Your task to perform on an android device: turn off javascript in the chrome app Image 0: 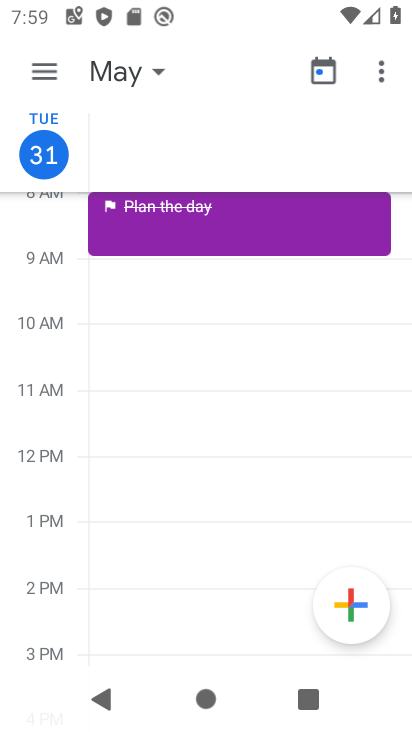
Step 0: press home button
Your task to perform on an android device: turn off javascript in the chrome app Image 1: 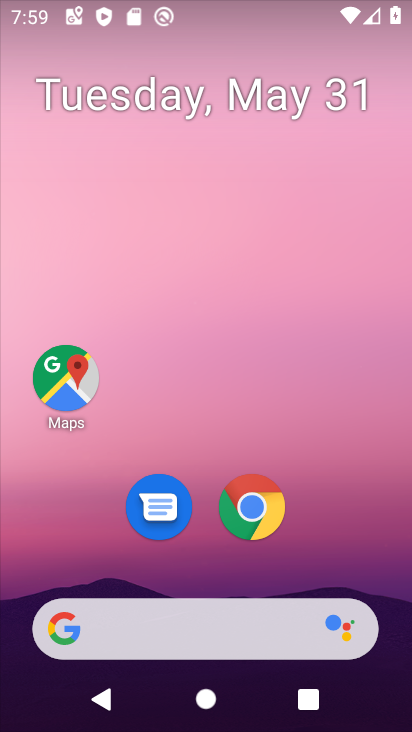
Step 1: drag from (330, 563) to (304, 104)
Your task to perform on an android device: turn off javascript in the chrome app Image 2: 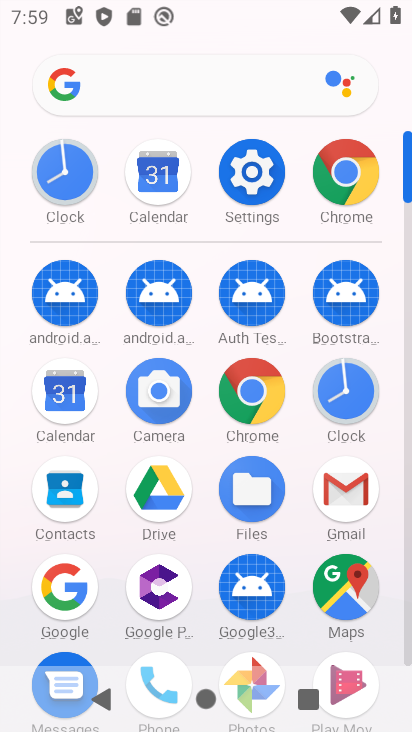
Step 2: click (252, 394)
Your task to perform on an android device: turn off javascript in the chrome app Image 3: 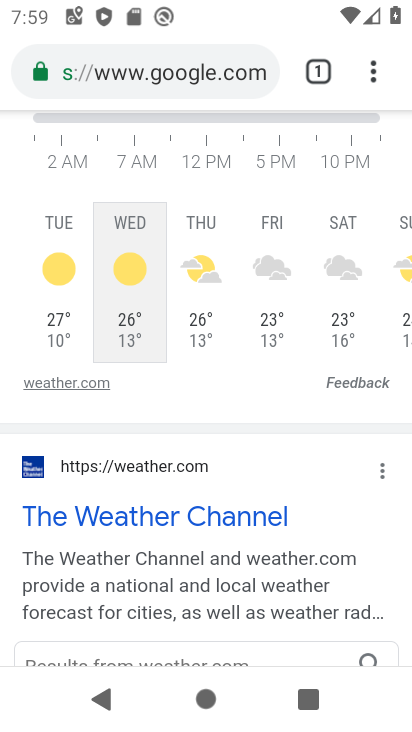
Step 3: click (376, 66)
Your task to perform on an android device: turn off javascript in the chrome app Image 4: 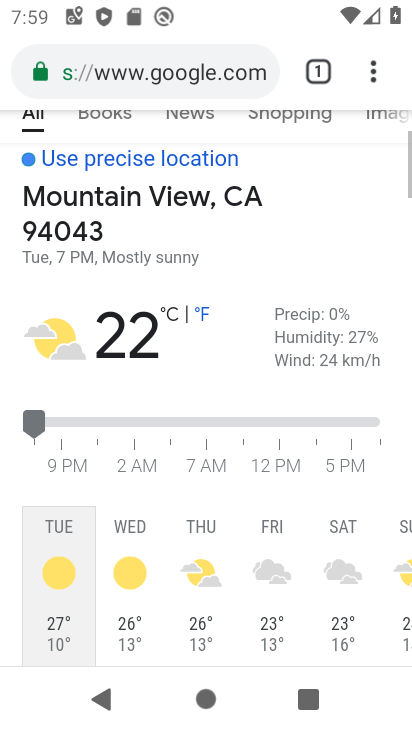
Step 4: drag from (367, 67) to (134, 511)
Your task to perform on an android device: turn off javascript in the chrome app Image 5: 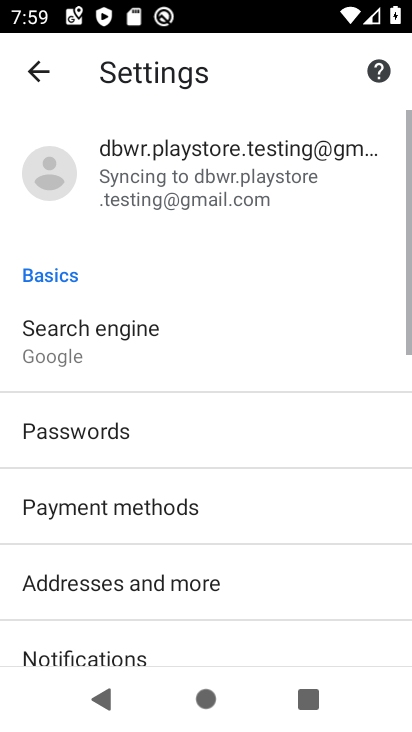
Step 5: drag from (134, 510) to (190, 221)
Your task to perform on an android device: turn off javascript in the chrome app Image 6: 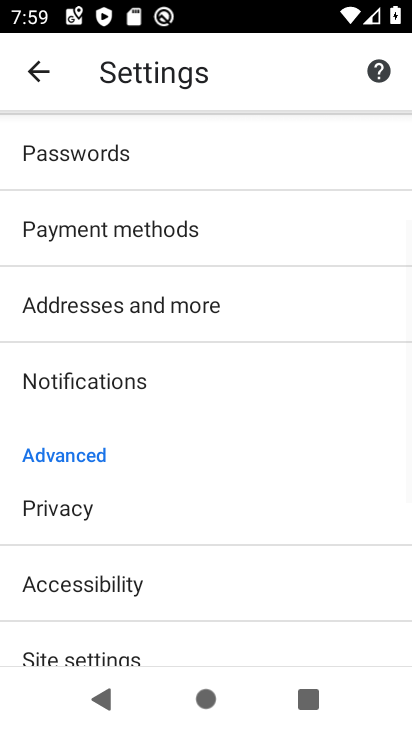
Step 6: drag from (264, 595) to (300, 235)
Your task to perform on an android device: turn off javascript in the chrome app Image 7: 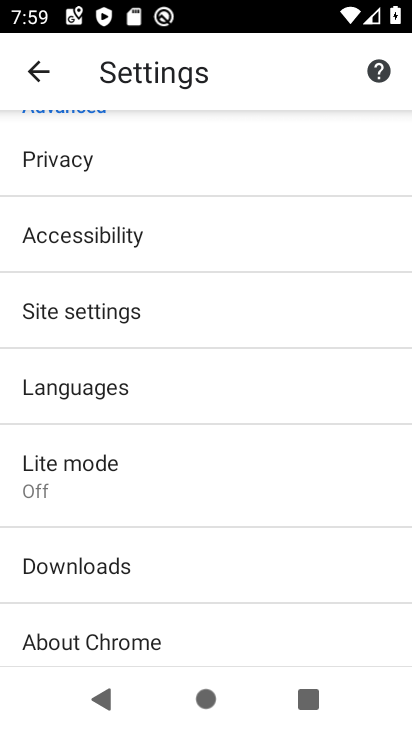
Step 7: click (108, 298)
Your task to perform on an android device: turn off javascript in the chrome app Image 8: 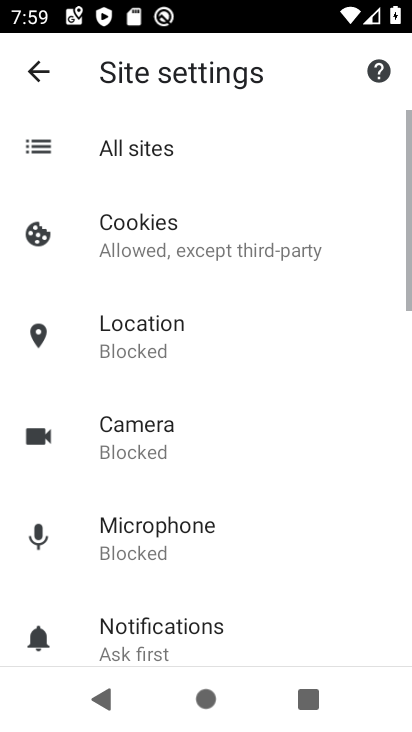
Step 8: drag from (211, 562) to (241, 138)
Your task to perform on an android device: turn off javascript in the chrome app Image 9: 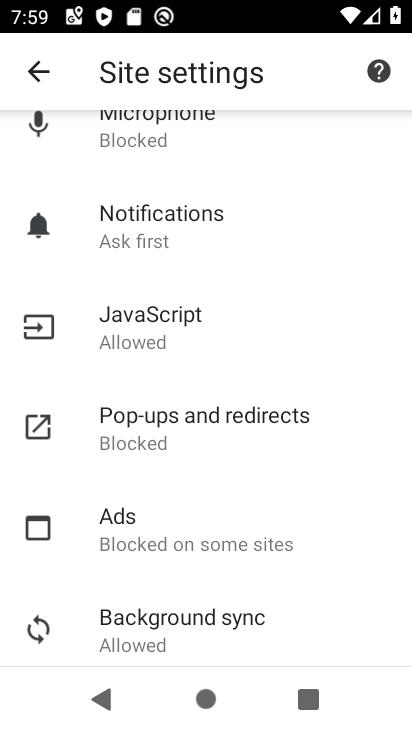
Step 9: click (204, 328)
Your task to perform on an android device: turn off javascript in the chrome app Image 10: 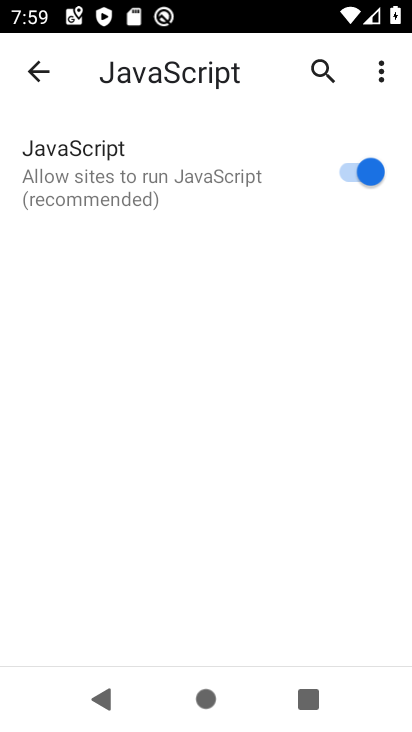
Step 10: click (368, 184)
Your task to perform on an android device: turn off javascript in the chrome app Image 11: 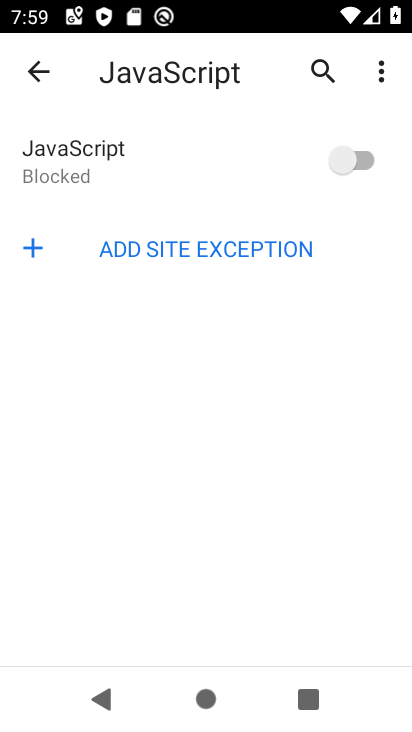
Step 11: task complete